Your task to perform on an android device: turn on wifi Image 0: 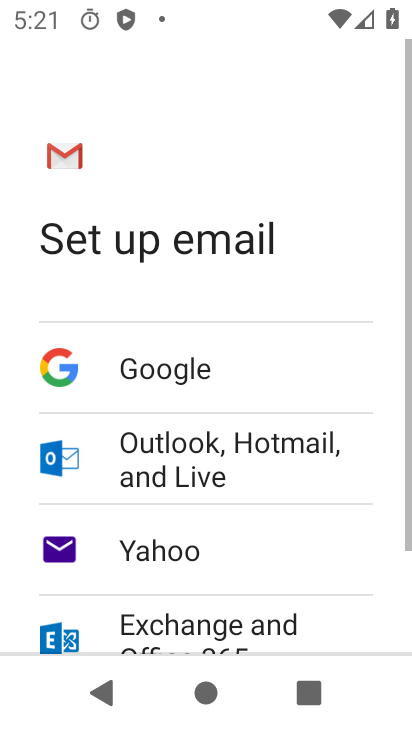
Step 0: press home button
Your task to perform on an android device: turn on wifi Image 1: 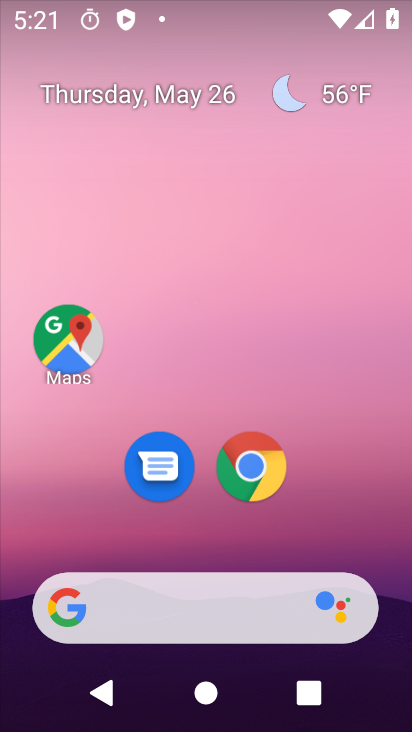
Step 1: task complete